Your task to perform on an android device: turn off notifications in google photos Image 0: 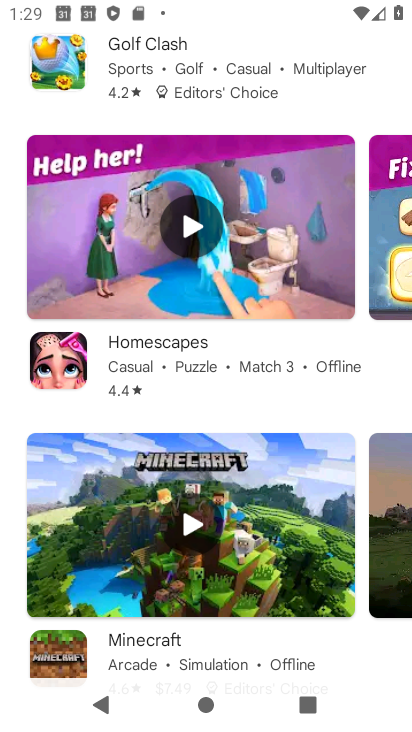
Step 0: drag from (150, 550) to (171, 234)
Your task to perform on an android device: turn off notifications in google photos Image 1: 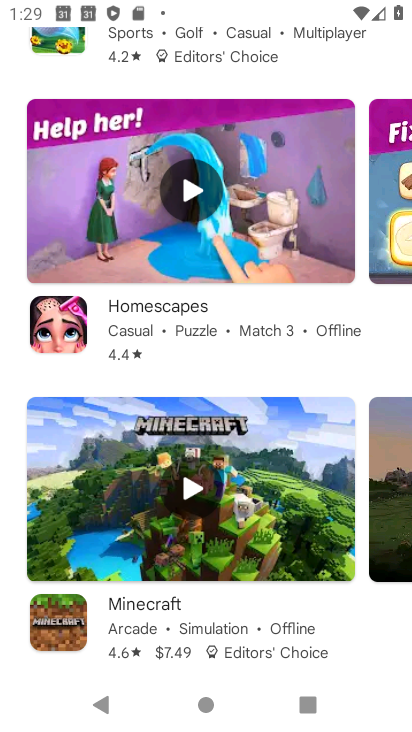
Step 1: drag from (302, 247) to (275, 628)
Your task to perform on an android device: turn off notifications in google photos Image 2: 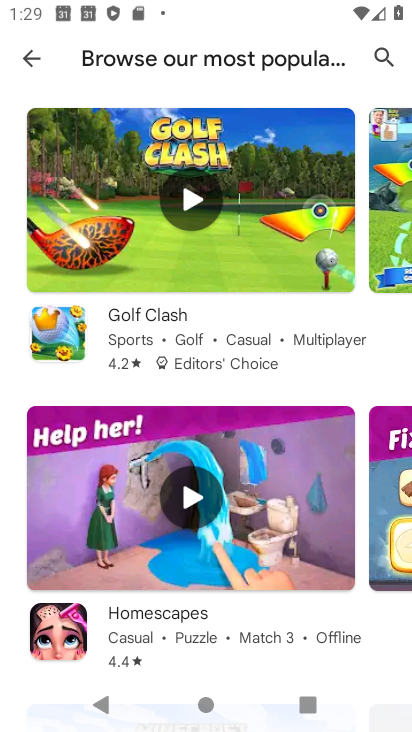
Step 2: click (41, 57)
Your task to perform on an android device: turn off notifications in google photos Image 3: 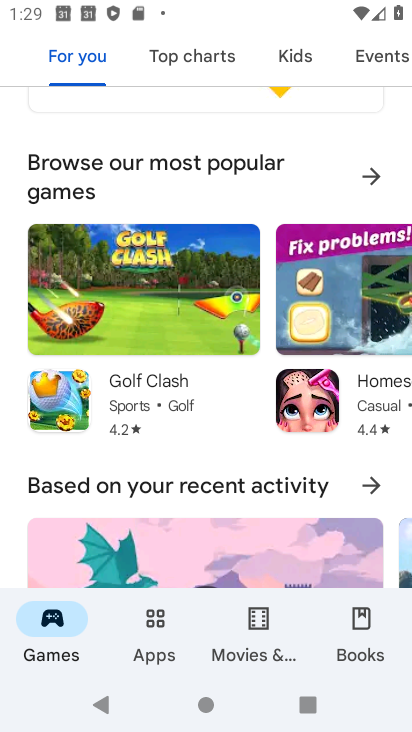
Step 3: drag from (260, 219) to (247, 705)
Your task to perform on an android device: turn off notifications in google photos Image 4: 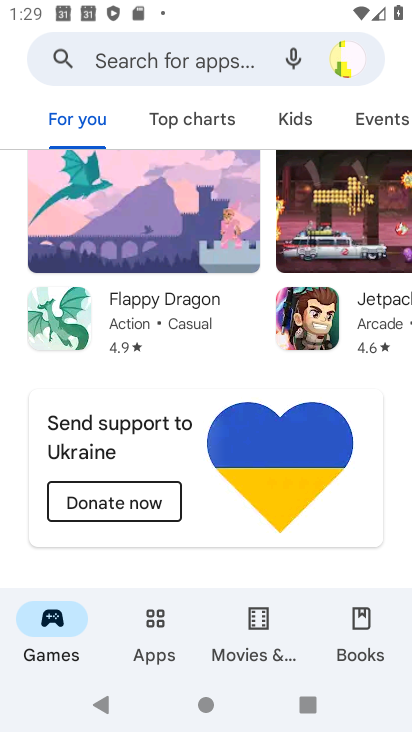
Step 4: click (355, 59)
Your task to perform on an android device: turn off notifications in google photos Image 5: 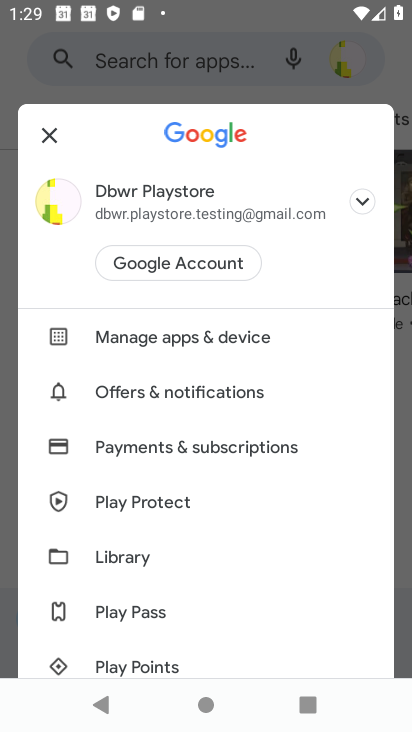
Step 5: press home button
Your task to perform on an android device: turn off notifications in google photos Image 6: 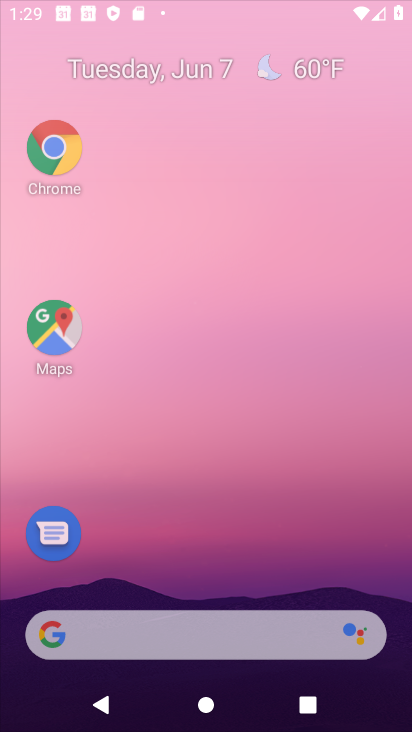
Step 6: drag from (206, 608) to (335, 117)
Your task to perform on an android device: turn off notifications in google photos Image 7: 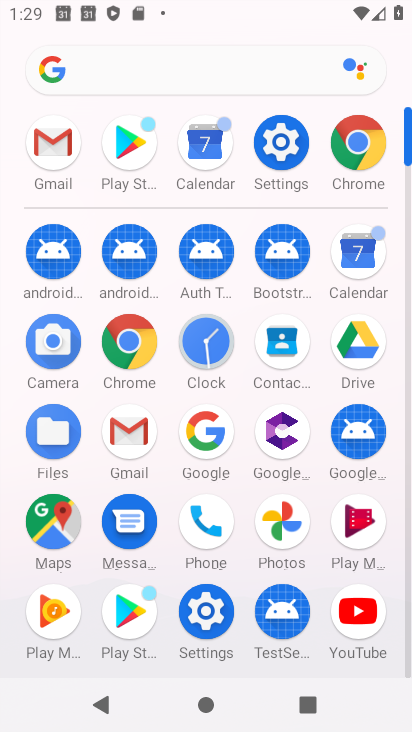
Step 7: click (283, 524)
Your task to perform on an android device: turn off notifications in google photos Image 8: 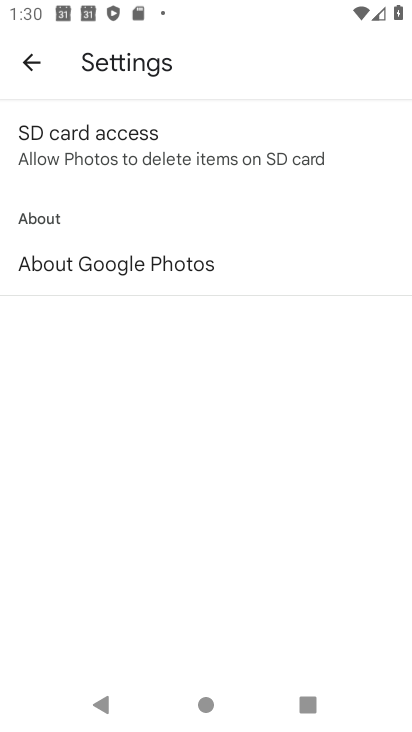
Step 8: click (34, 59)
Your task to perform on an android device: turn off notifications in google photos Image 9: 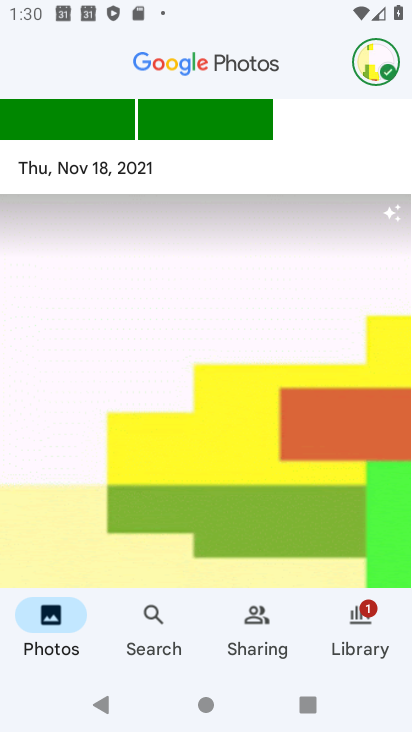
Step 9: click (358, 50)
Your task to perform on an android device: turn off notifications in google photos Image 10: 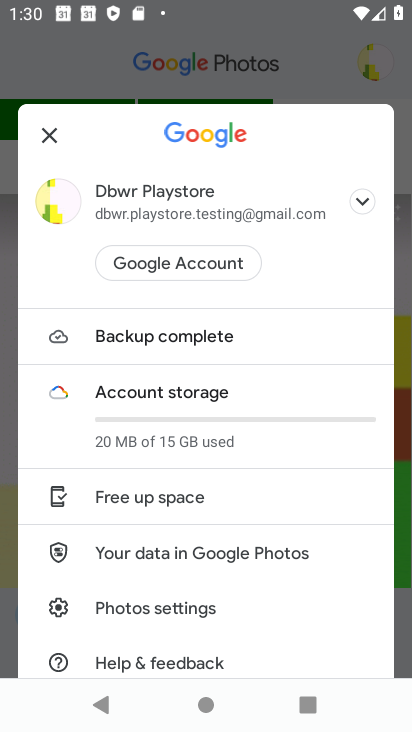
Step 10: click (135, 615)
Your task to perform on an android device: turn off notifications in google photos Image 11: 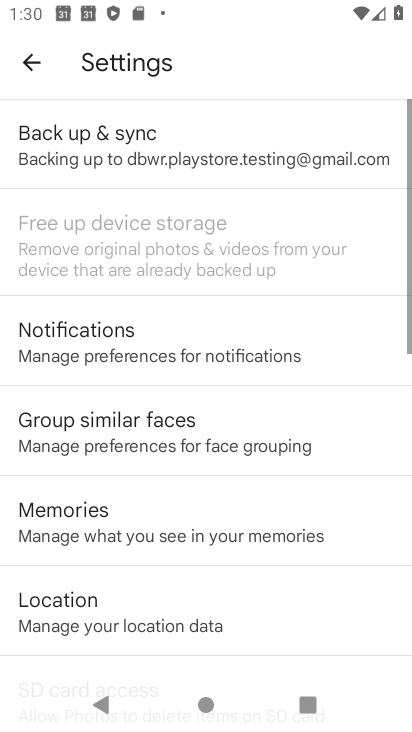
Step 11: click (136, 339)
Your task to perform on an android device: turn off notifications in google photos Image 12: 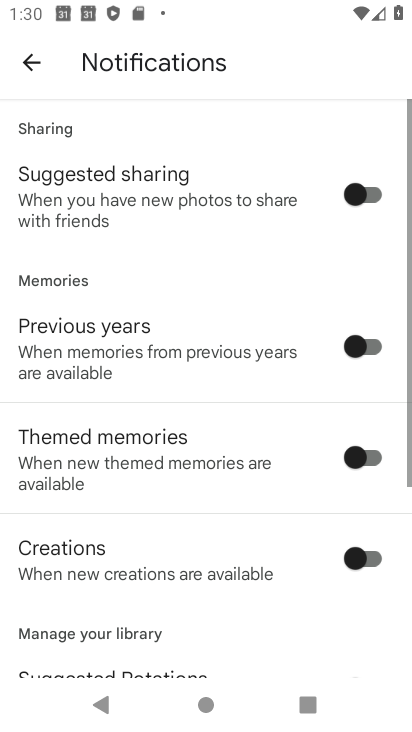
Step 12: drag from (151, 620) to (277, 33)
Your task to perform on an android device: turn off notifications in google photos Image 13: 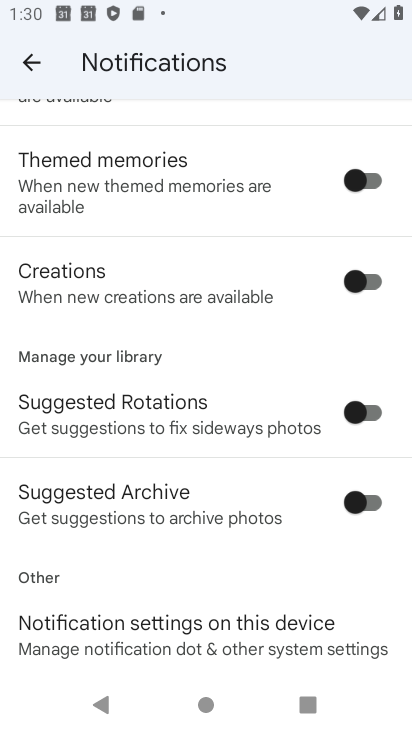
Step 13: click (169, 633)
Your task to perform on an android device: turn off notifications in google photos Image 14: 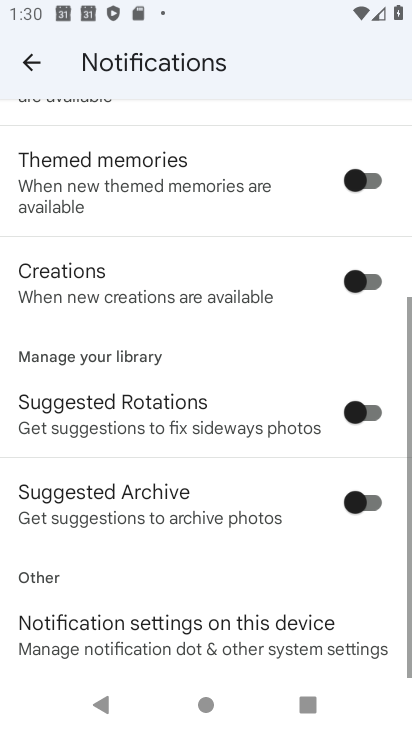
Step 14: drag from (167, 627) to (287, 51)
Your task to perform on an android device: turn off notifications in google photos Image 15: 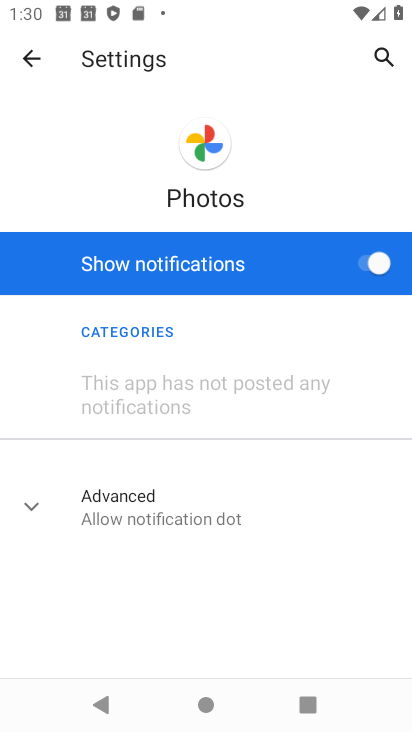
Step 15: click (369, 246)
Your task to perform on an android device: turn off notifications in google photos Image 16: 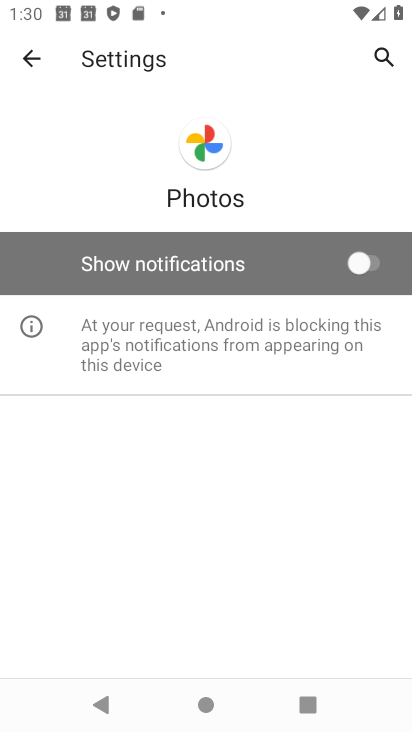
Step 16: task complete